Your task to perform on an android device: open app "Facebook Lite" Image 0: 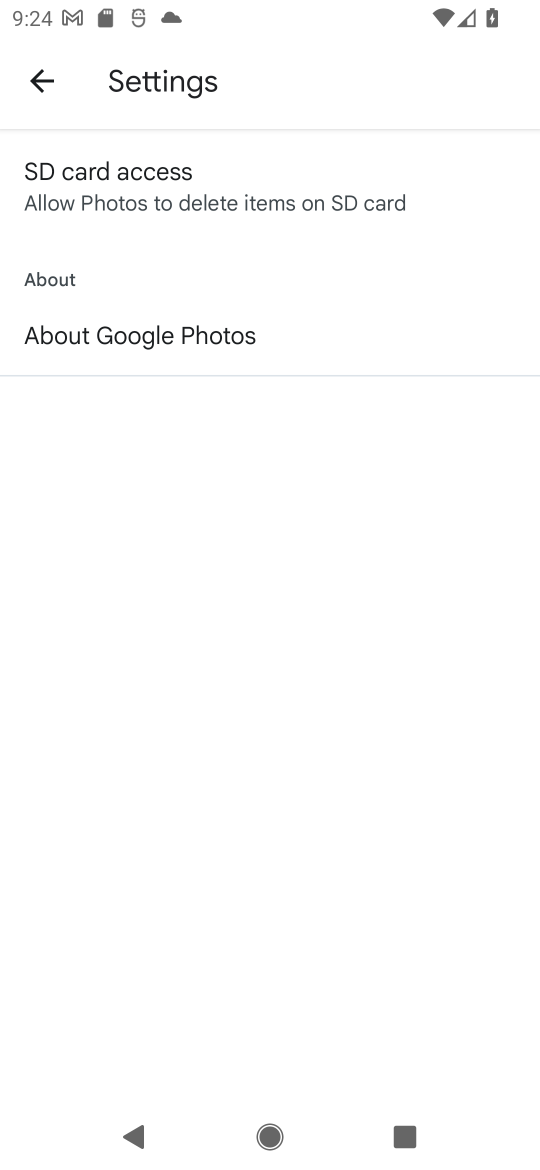
Step 0: press home button
Your task to perform on an android device: open app "Facebook Lite" Image 1: 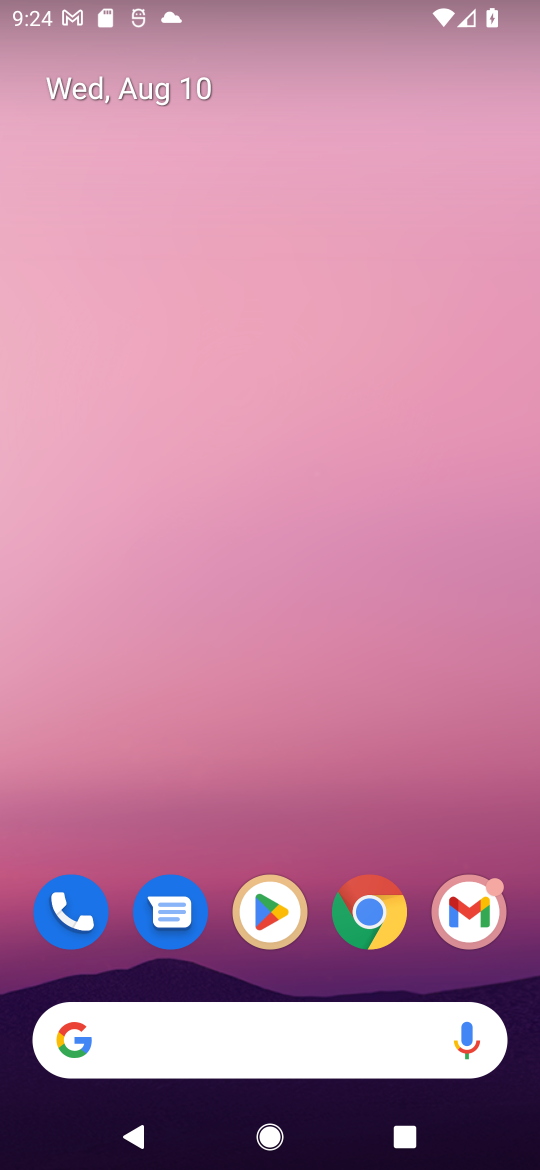
Step 1: drag from (529, 942) to (176, 124)
Your task to perform on an android device: open app "Facebook Lite" Image 2: 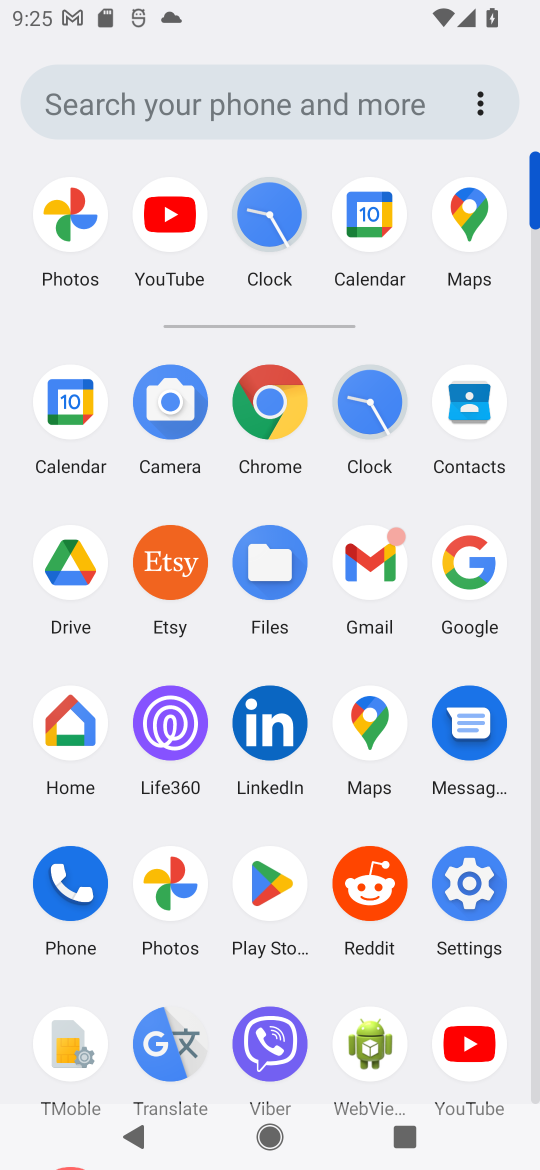
Step 2: click (261, 887)
Your task to perform on an android device: open app "Facebook Lite" Image 3: 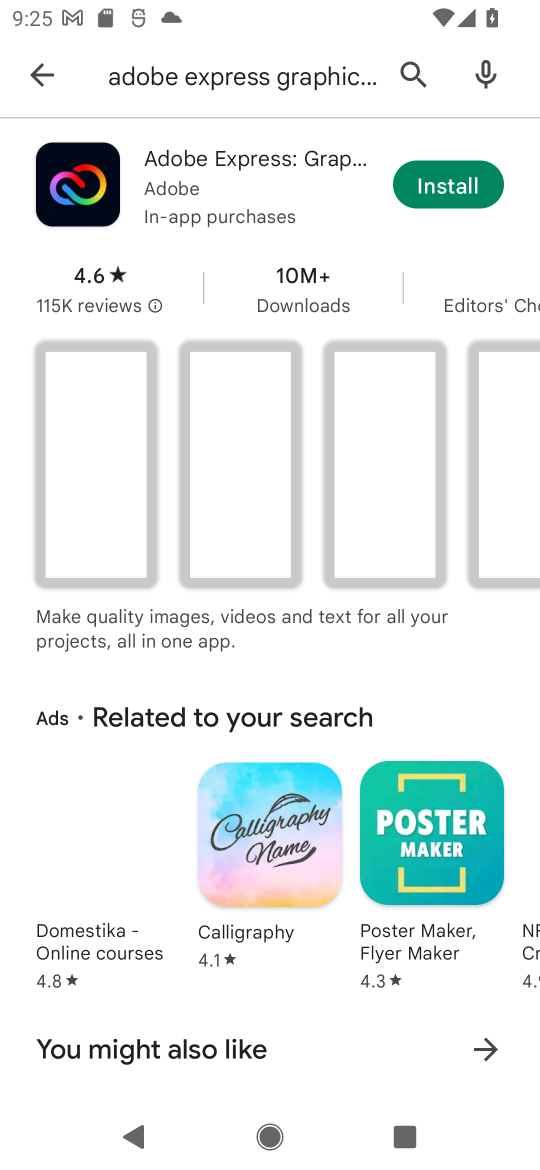
Step 3: press back button
Your task to perform on an android device: open app "Facebook Lite" Image 4: 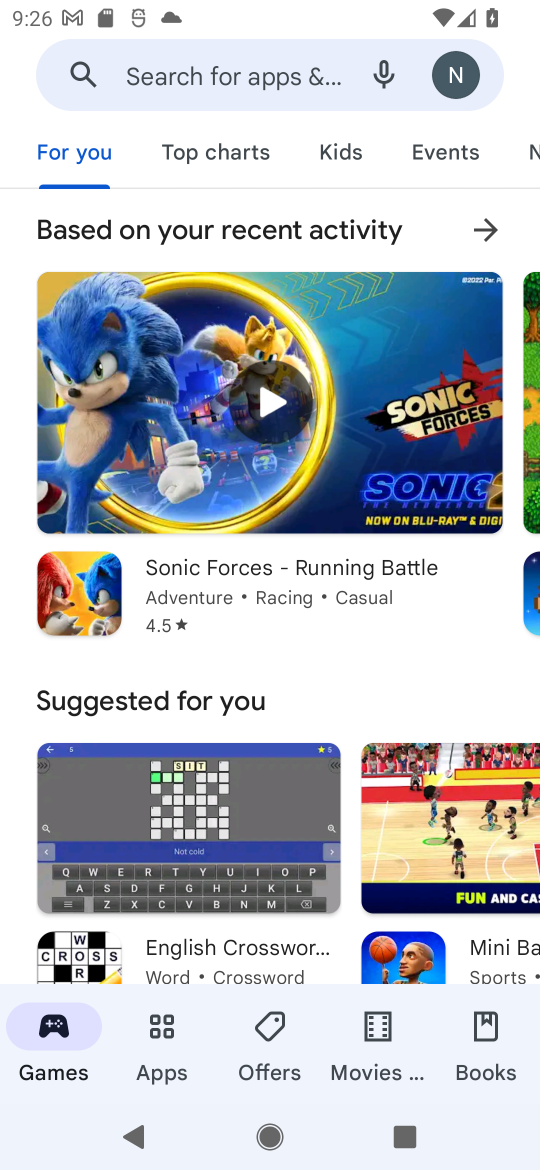
Step 4: click (235, 77)
Your task to perform on an android device: open app "Facebook Lite" Image 5: 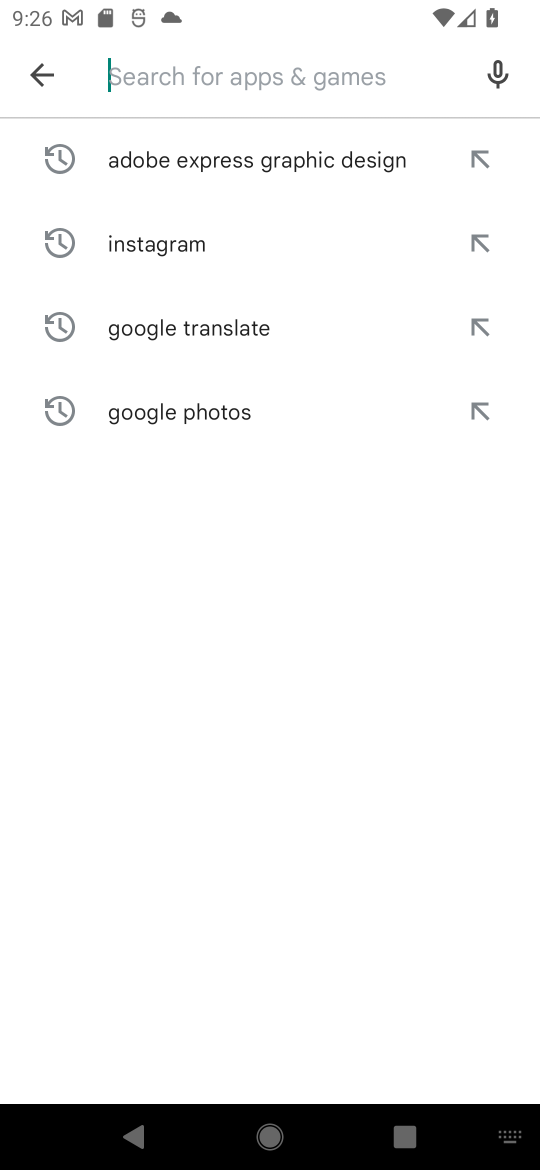
Step 5: type "Facebook Lite"
Your task to perform on an android device: open app "Facebook Lite" Image 6: 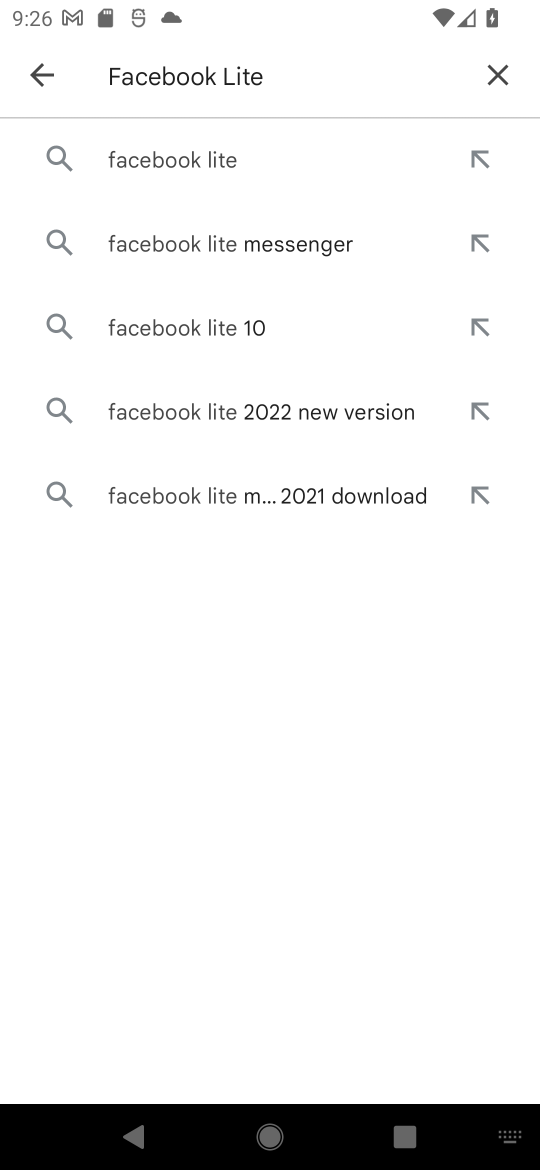
Step 6: click (219, 163)
Your task to perform on an android device: open app "Facebook Lite" Image 7: 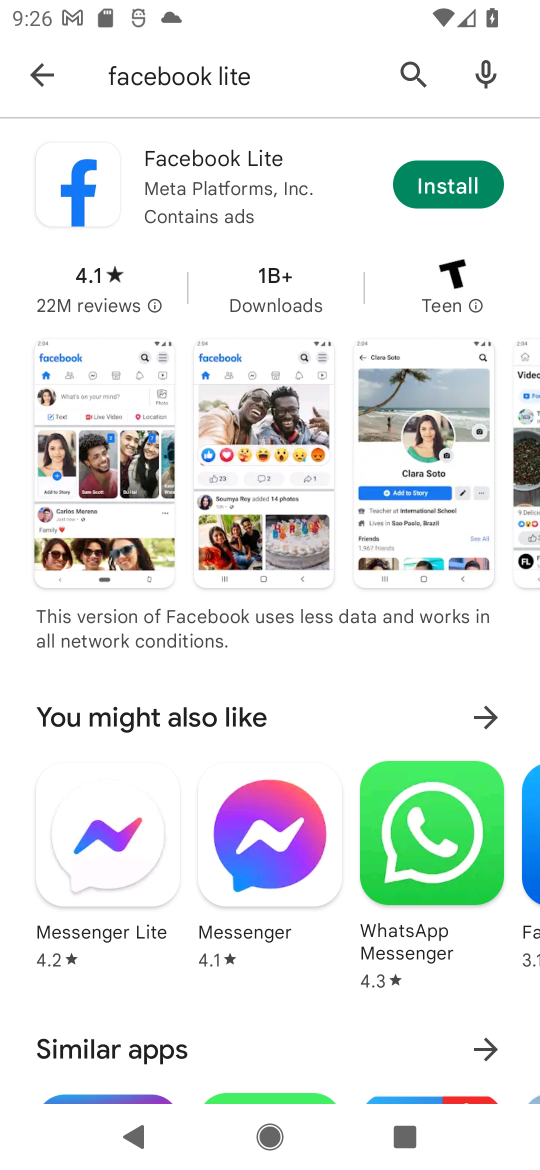
Step 7: task complete